Your task to perform on an android device: open app "DoorDash - Food Delivery" Image 0: 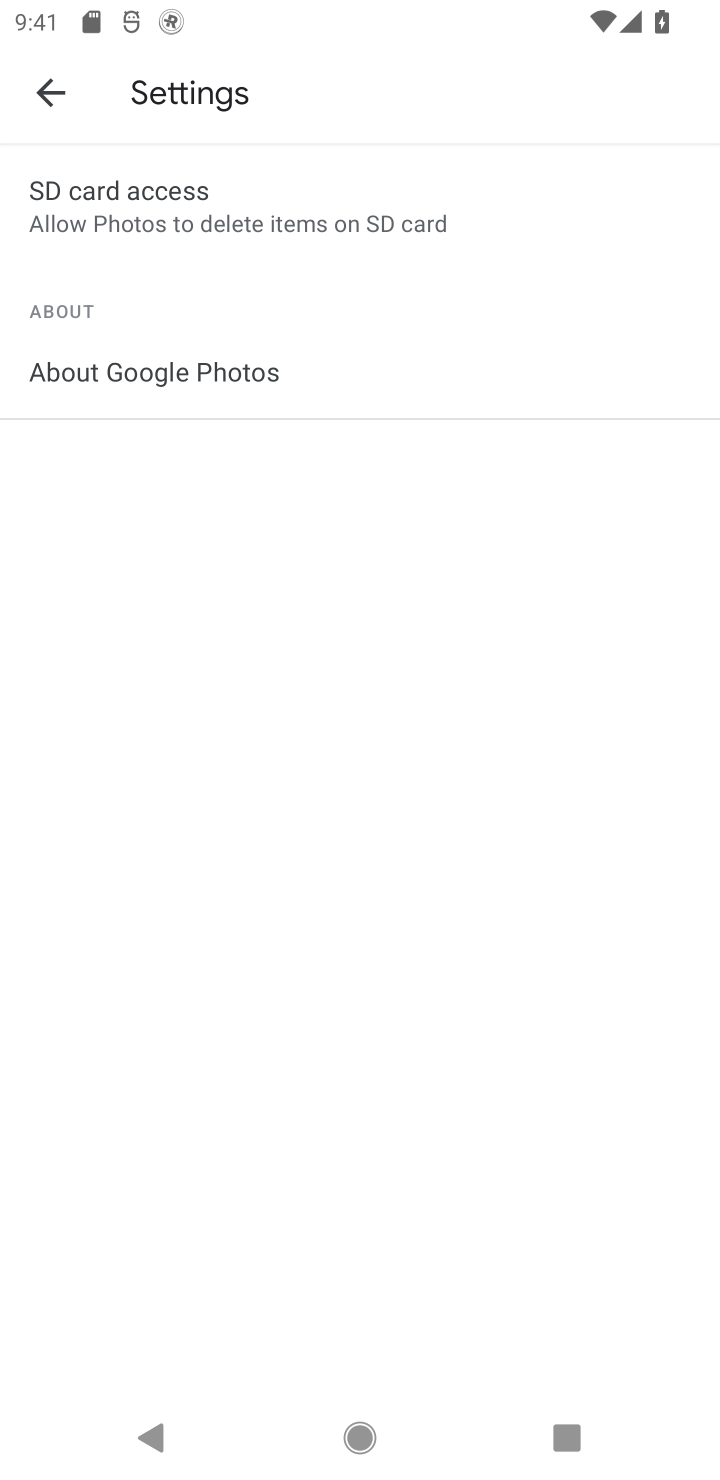
Step 0: press home button
Your task to perform on an android device: open app "DoorDash - Food Delivery" Image 1: 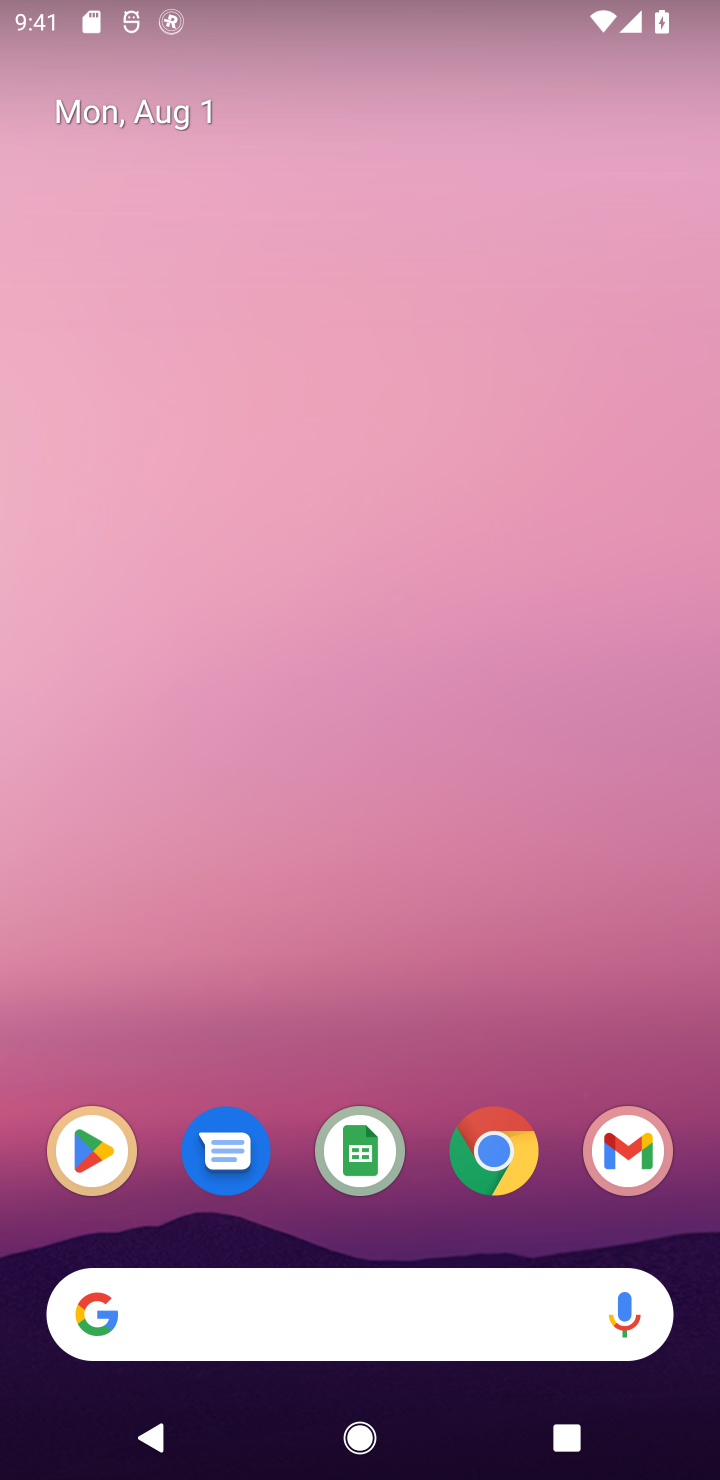
Step 1: click (98, 1144)
Your task to perform on an android device: open app "DoorDash - Food Delivery" Image 2: 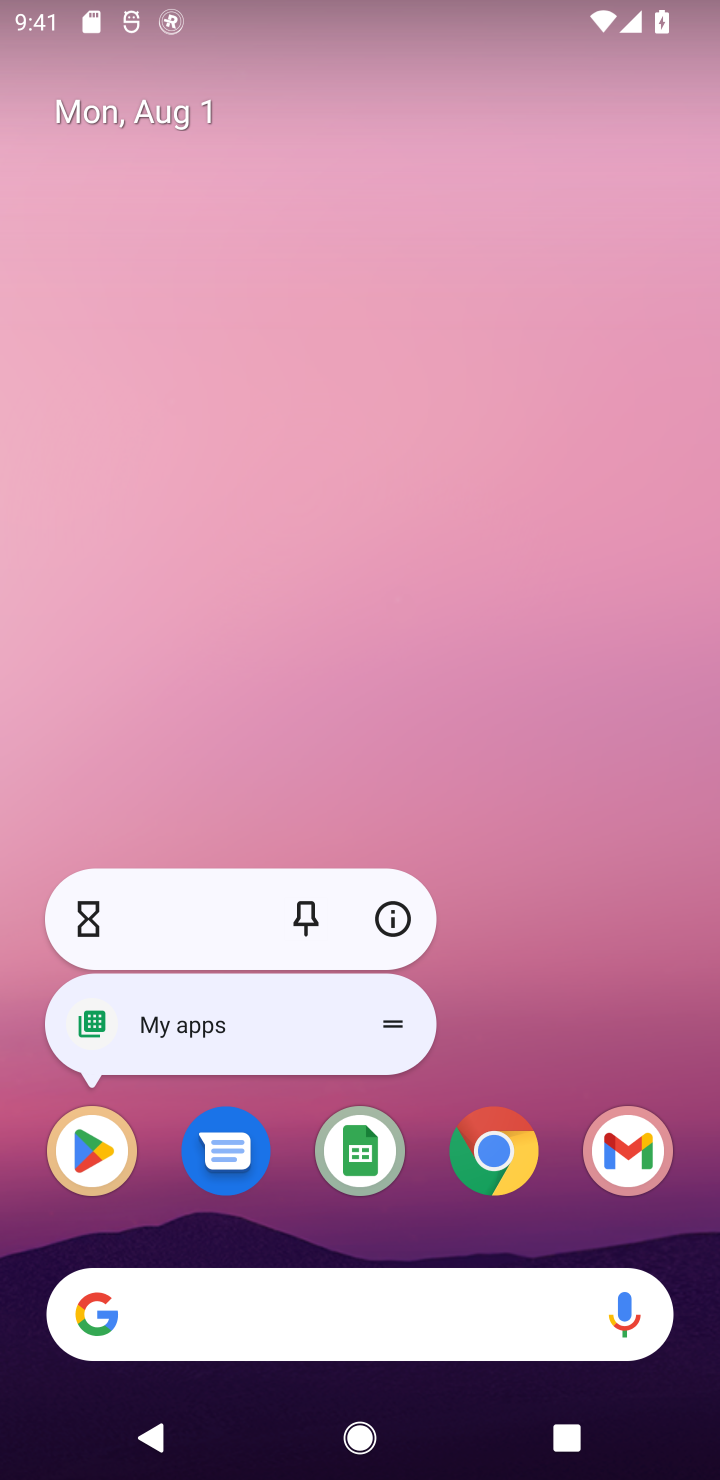
Step 2: click (130, 1158)
Your task to perform on an android device: open app "DoorDash - Food Delivery" Image 3: 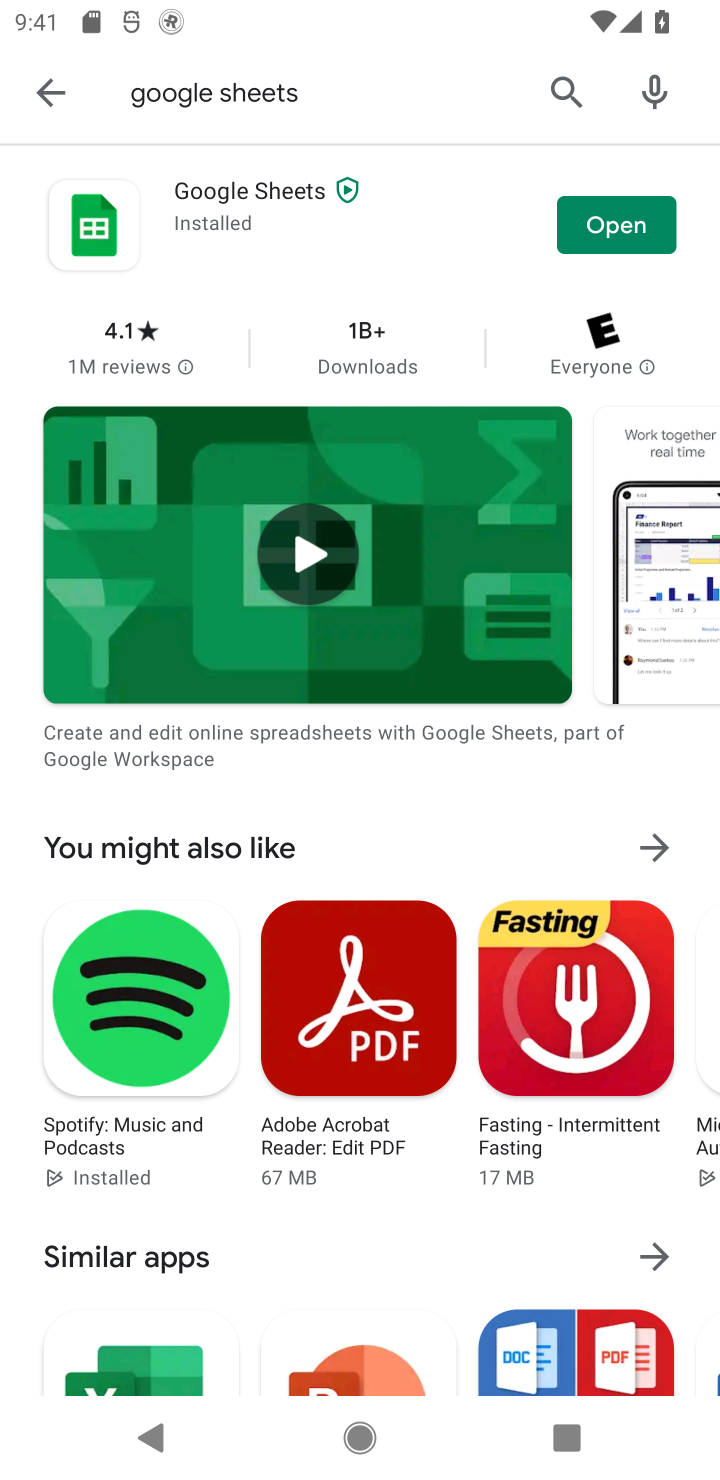
Step 3: click (130, 1158)
Your task to perform on an android device: open app "DoorDash - Food Delivery" Image 4: 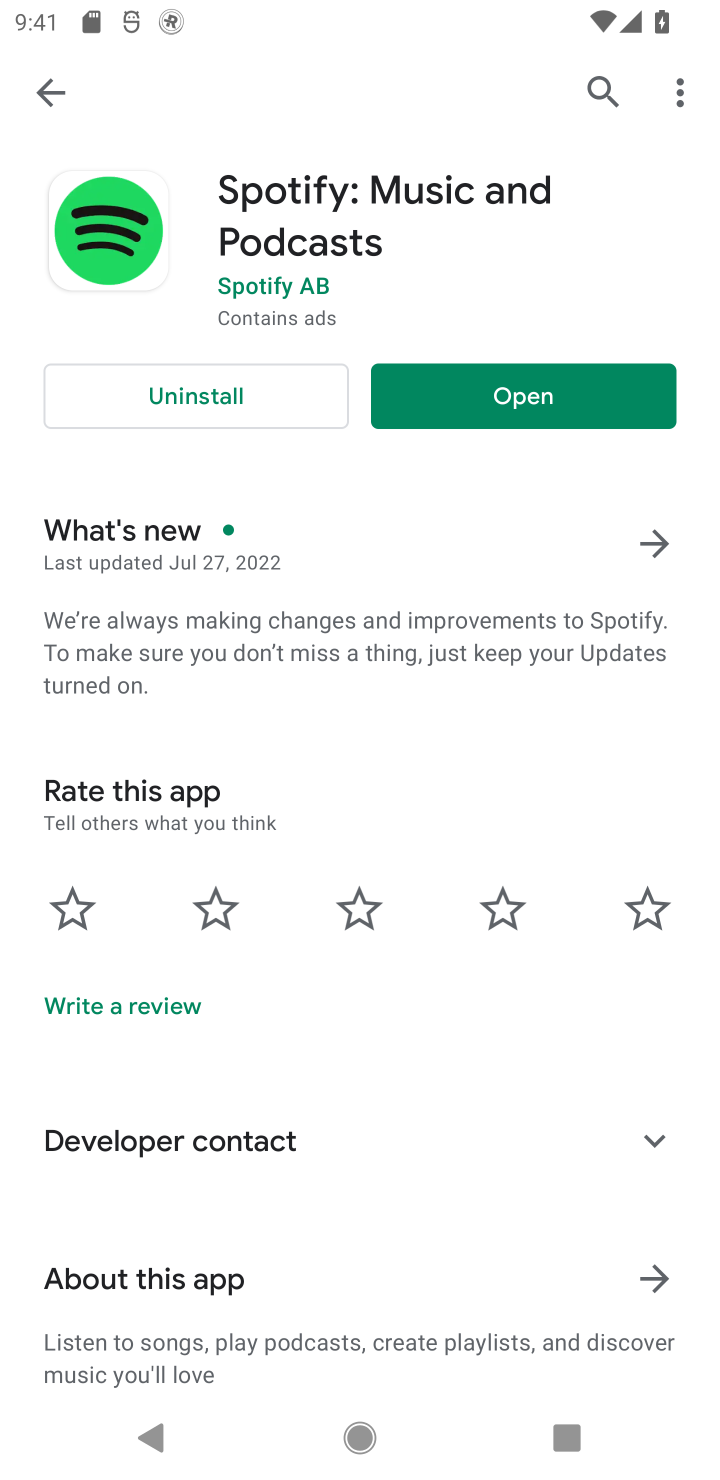
Step 4: click (606, 94)
Your task to perform on an android device: open app "DoorDash - Food Delivery" Image 5: 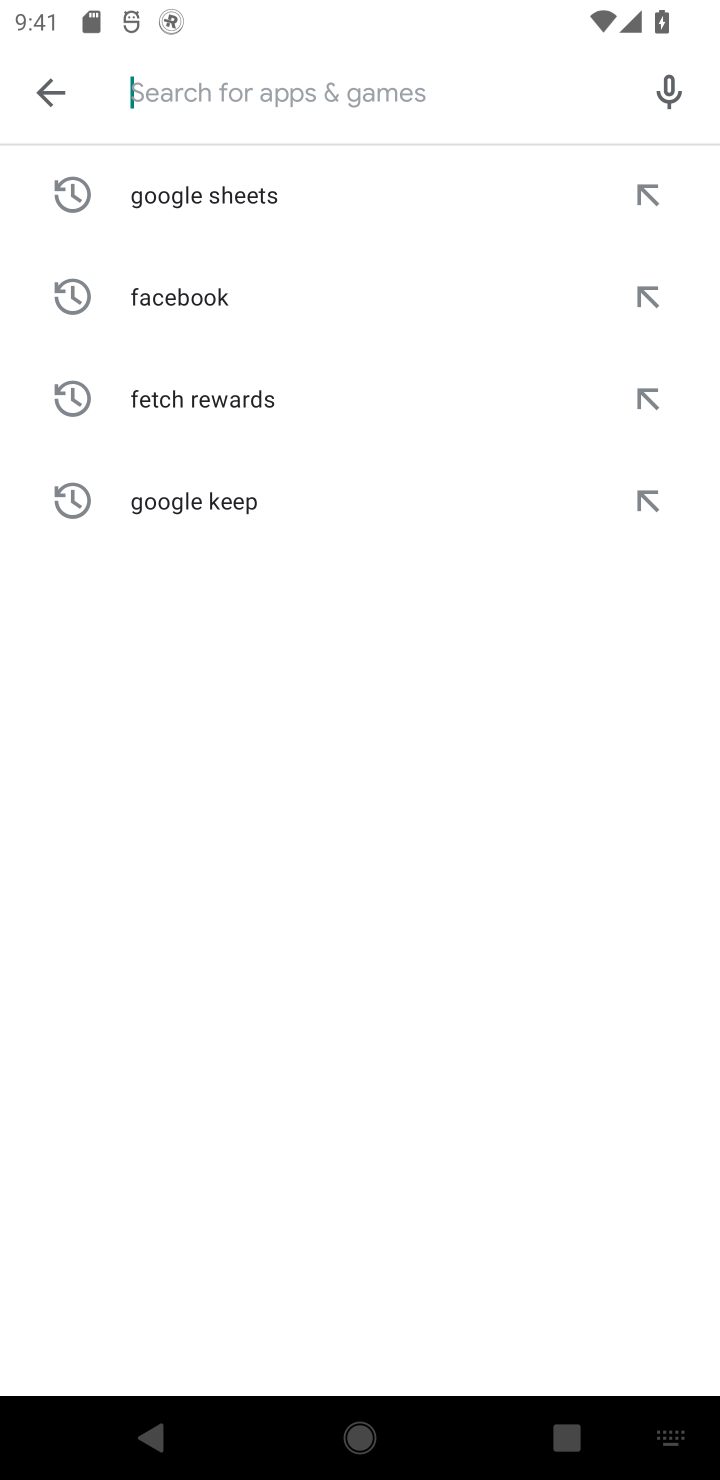
Step 5: type "DoorDash - Food Delivery"
Your task to perform on an android device: open app "DoorDash - Food Delivery" Image 6: 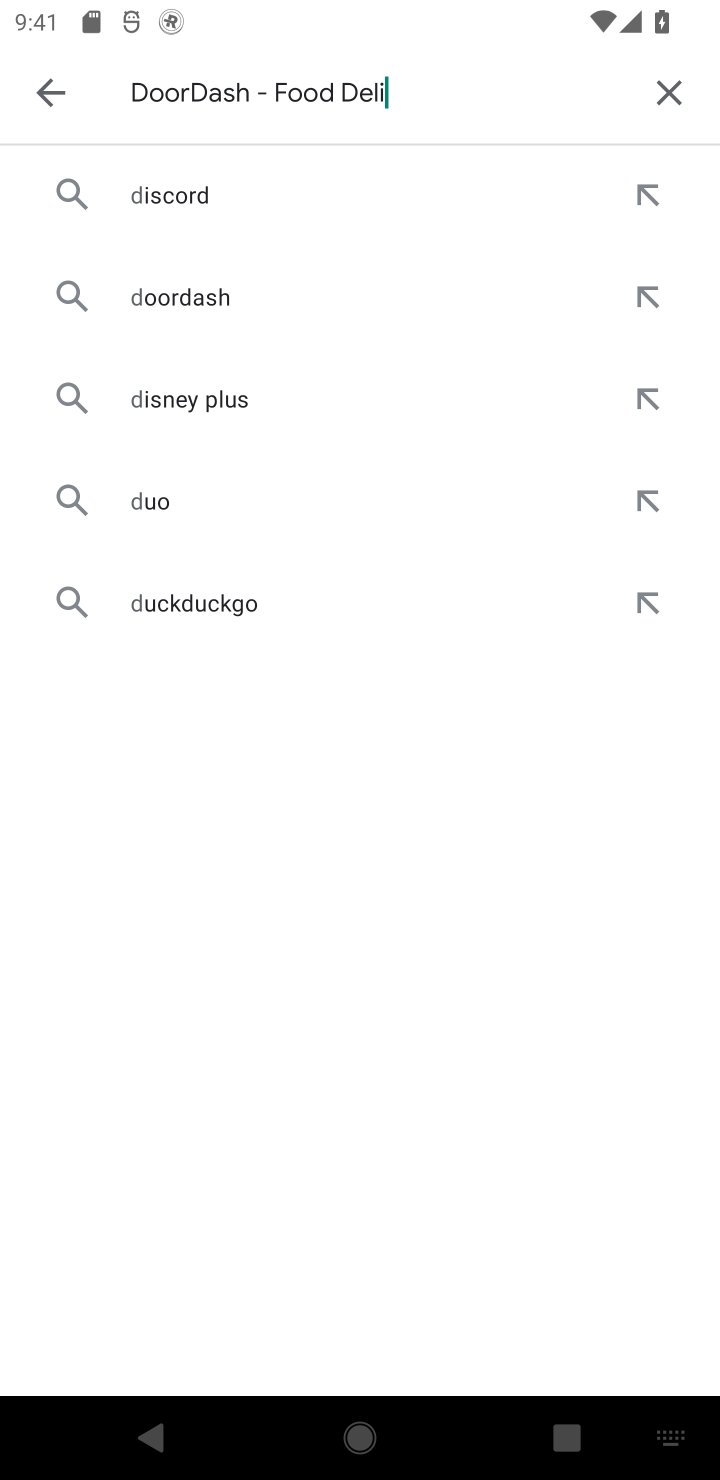
Step 6: type ""
Your task to perform on an android device: open app "DoorDash - Food Delivery" Image 7: 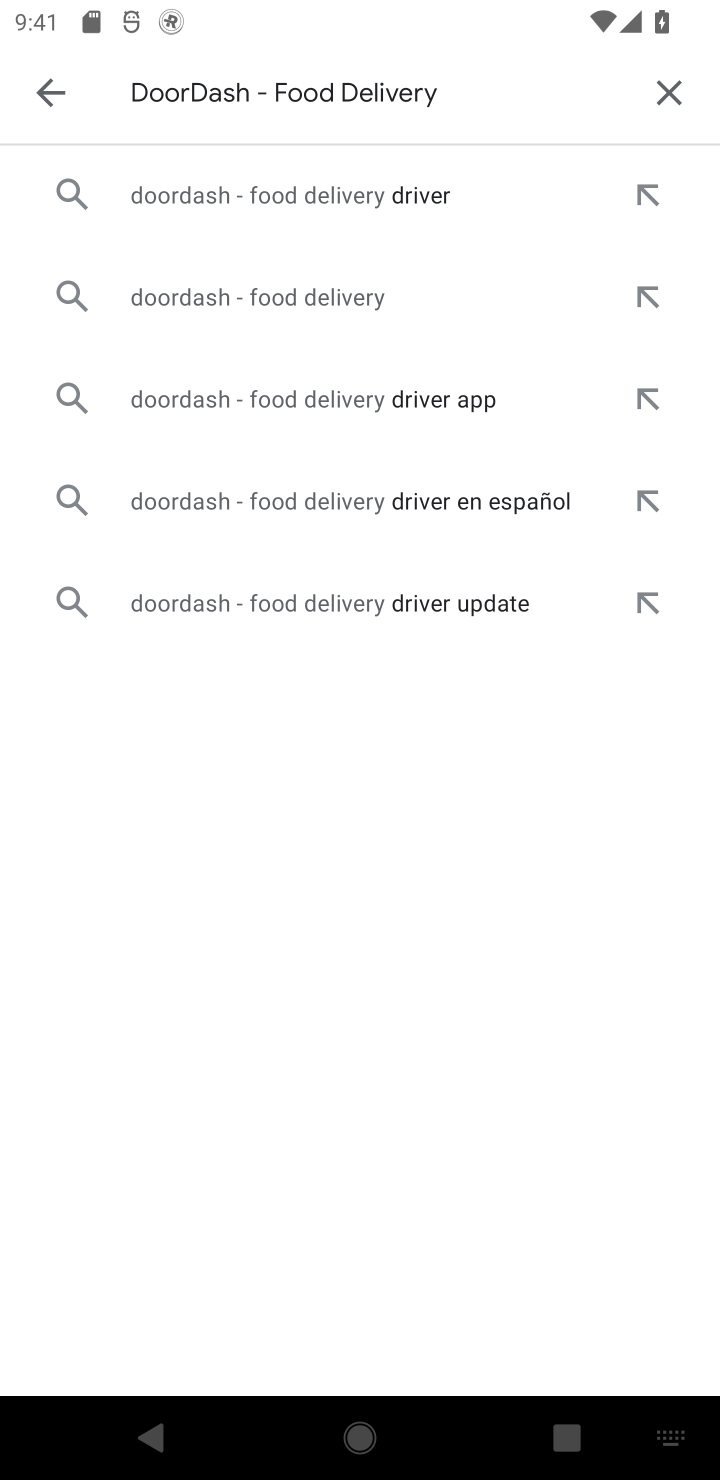
Step 7: click (294, 202)
Your task to perform on an android device: open app "DoorDash - Food Delivery" Image 8: 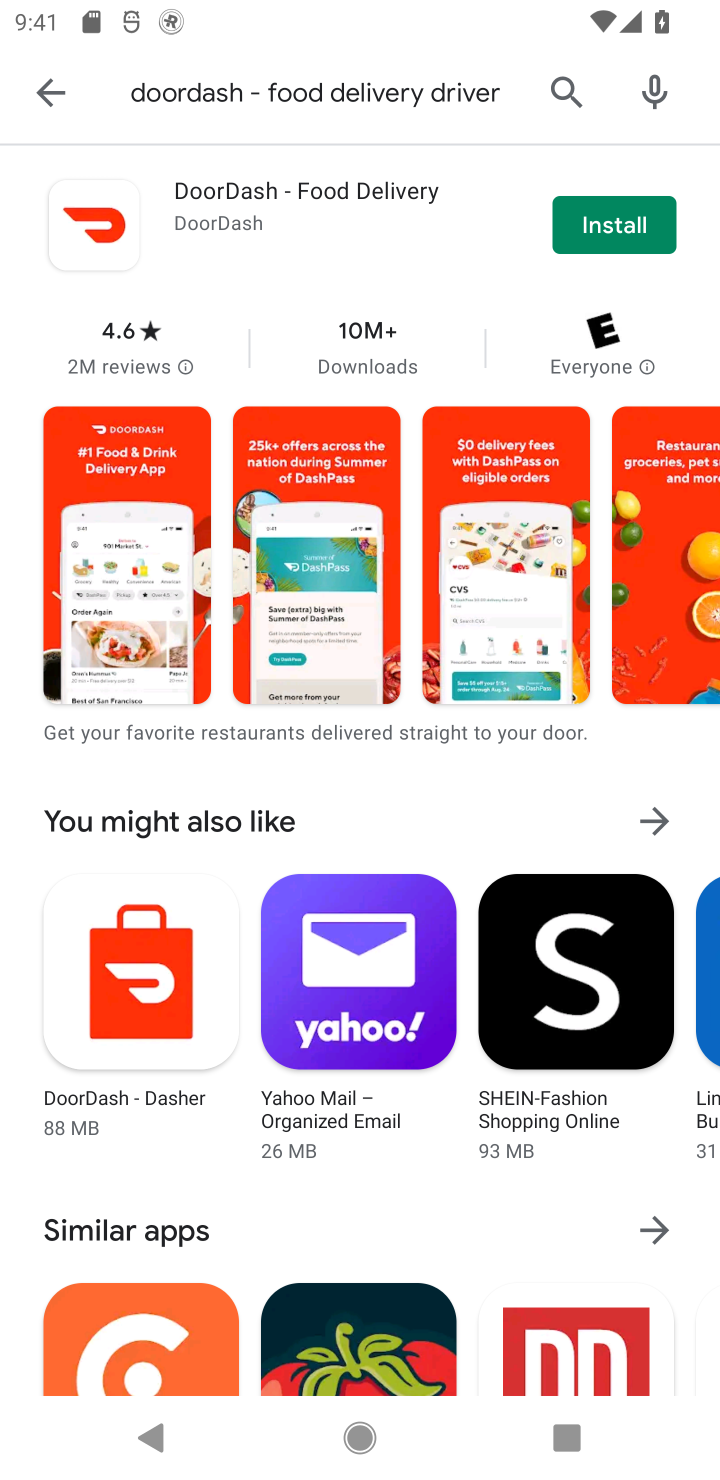
Step 8: task complete